Your task to perform on an android device: Is it going to rain today? Image 0: 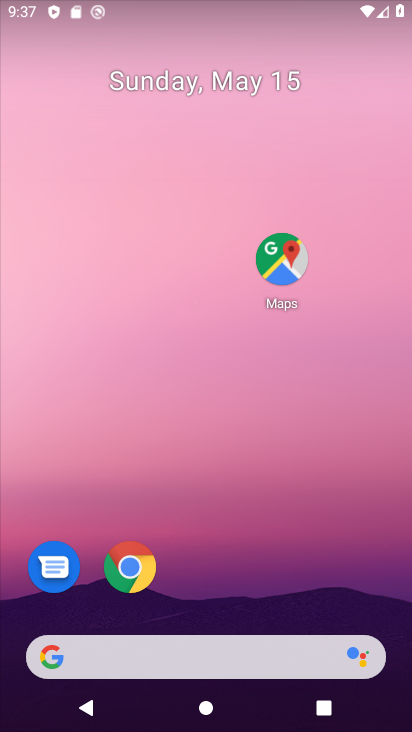
Step 0: drag from (258, 526) to (188, 130)
Your task to perform on an android device: Is it going to rain today? Image 1: 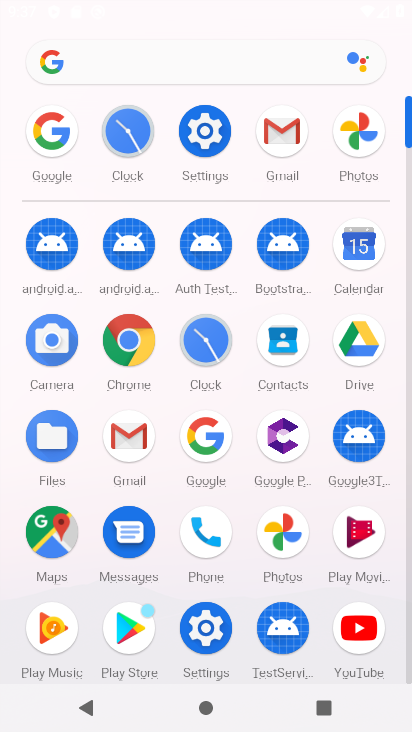
Step 1: click (202, 429)
Your task to perform on an android device: Is it going to rain today? Image 2: 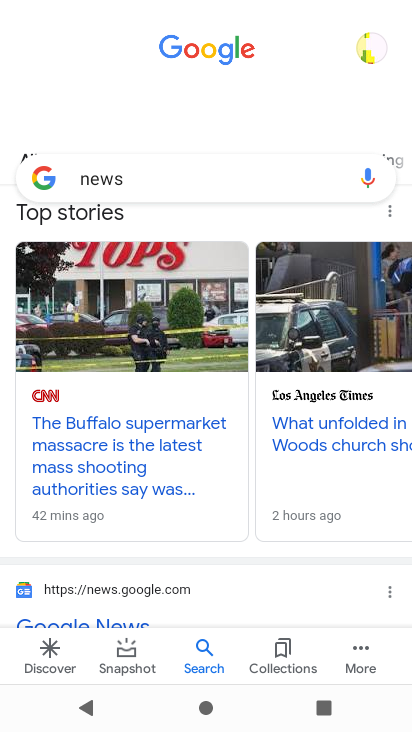
Step 2: click (222, 174)
Your task to perform on an android device: Is it going to rain today? Image 3: 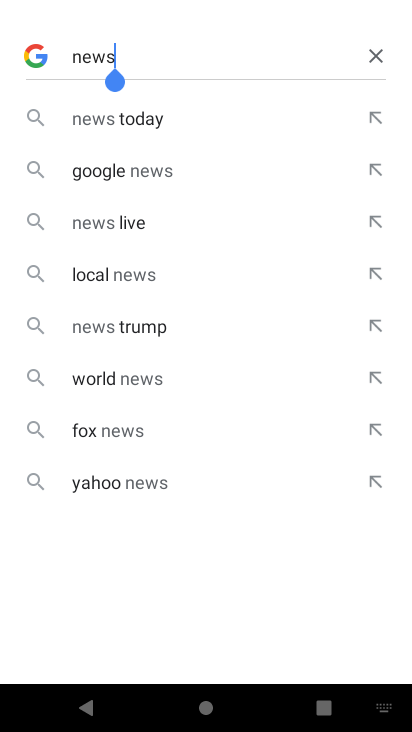
Step 3: click (367, 53)
Your task to perform on an android device: Is it going to rain today? Image 4: 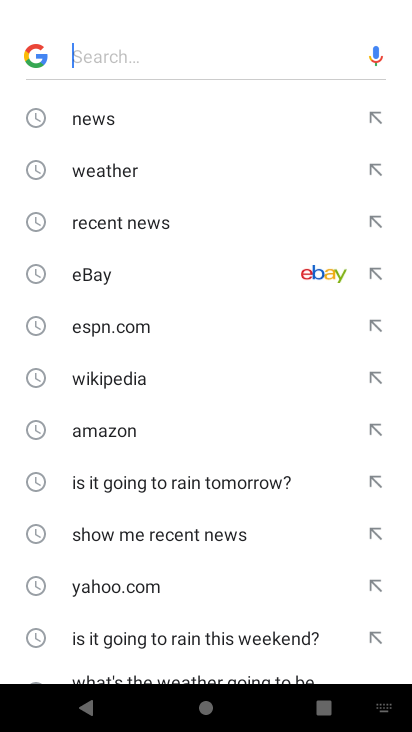
Step 4: drag from (242, 554) to (257, 460)
Your task to perform on an android device: Is it going to rain today? Image 5: 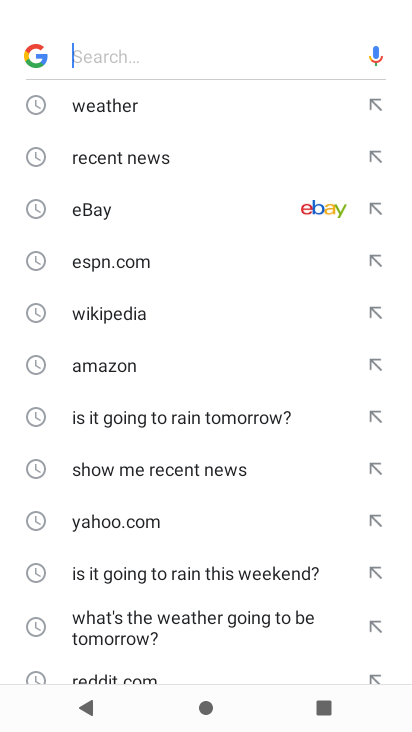
Step 5: type "is it going to rain today"
Your task to perform on an android device: Is it going to rain today? Image 6: 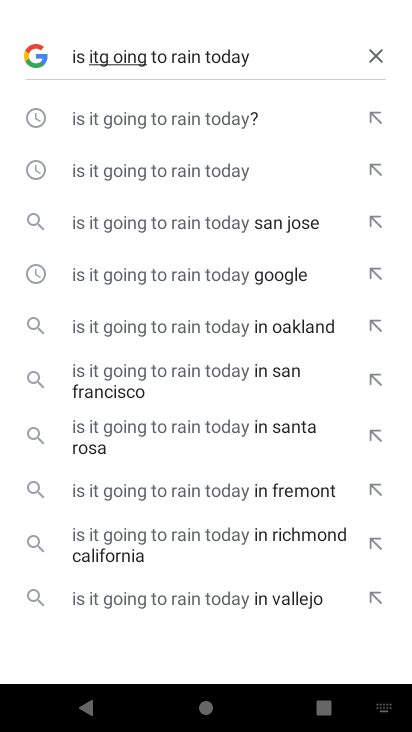
Step 6: click (204, 115)
Your task to perform on an android device: Is it going to rain today? Image 7: 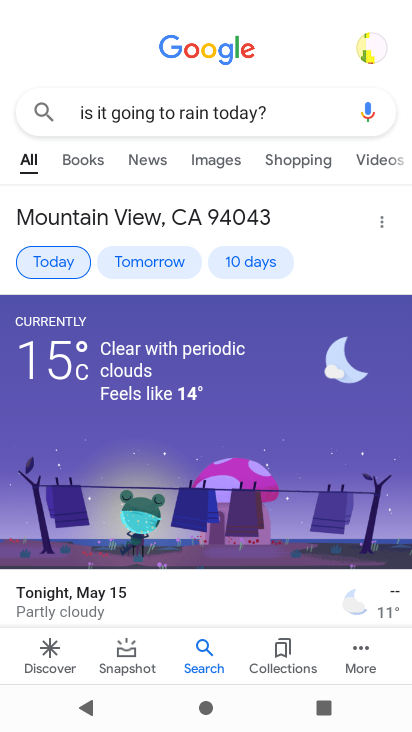
Step 7: task complete